Your task to perform on an android device: find photos in the google photos app Image 0: 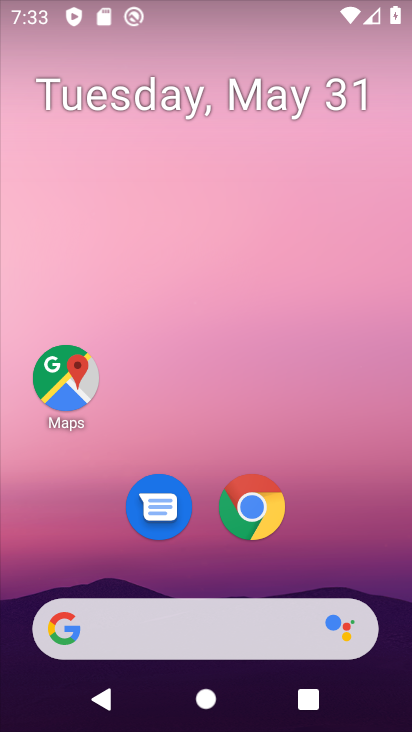
Step 0: drag from (368, 581) to (318, 9)
Your task to perform on an android device: find photos in the google photos app Image 1: 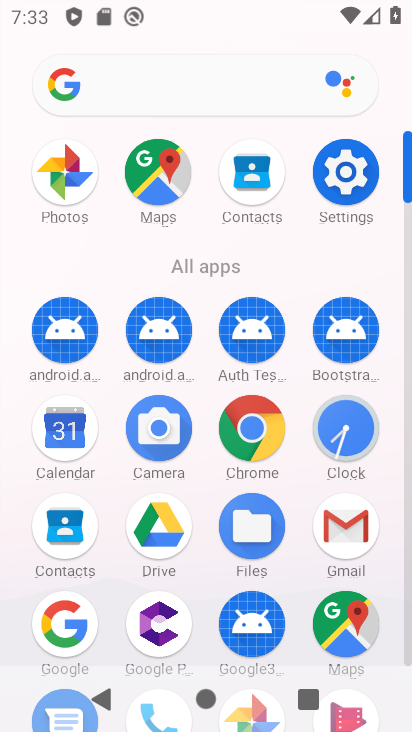
Step 1: click (59, 178)
Your task to perform on an android device: find photos in the google photos app Image 2: 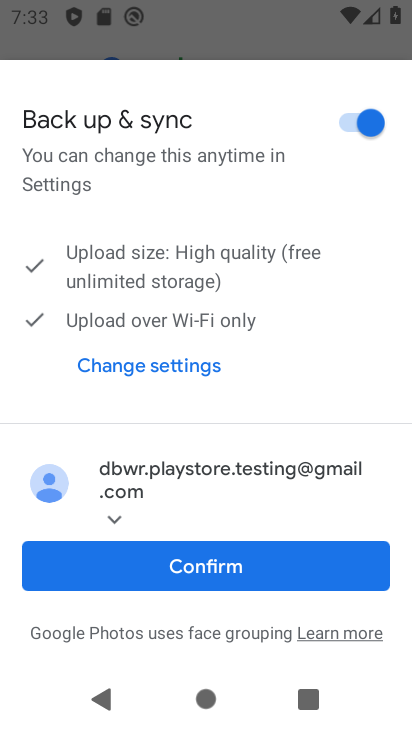
Step 2: click (206, 553)
Your task to perform on an android device: find photos in the google photos app Image 3: 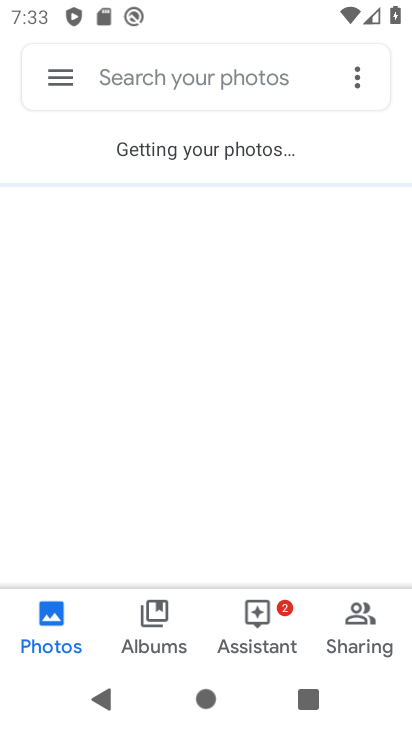
Step 3: click (53, 624)
Your task to perform on an android device: find photos in the google photos app Image 4: 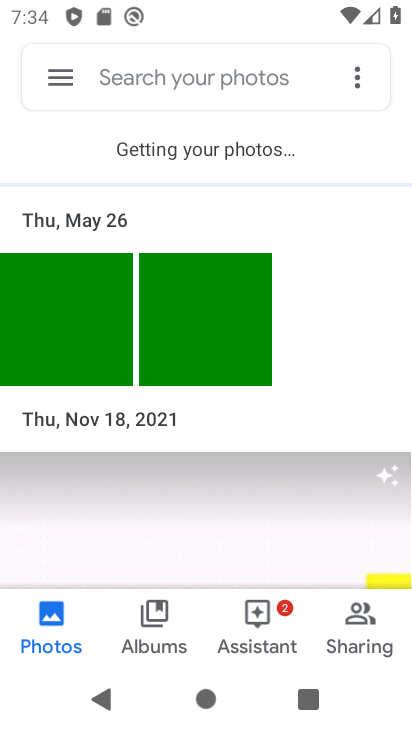
Step 4: task complete